Your task to perform on an android device: turn on priority inbox in the gmail app Image 0: 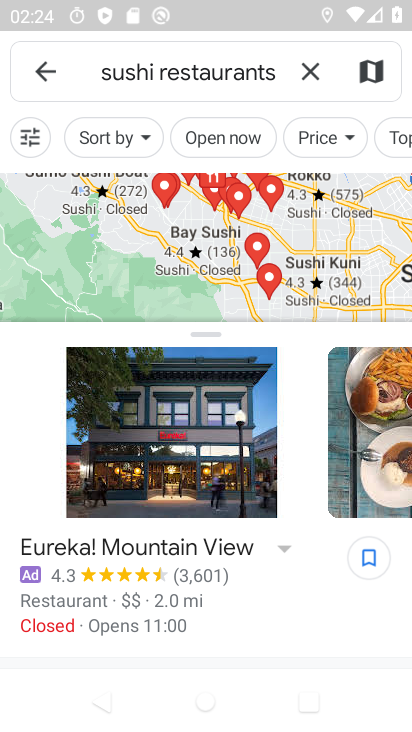
Step 0: press home button
Your task to perform on an android device: turn on priority inbox in the gmail app Image 1: 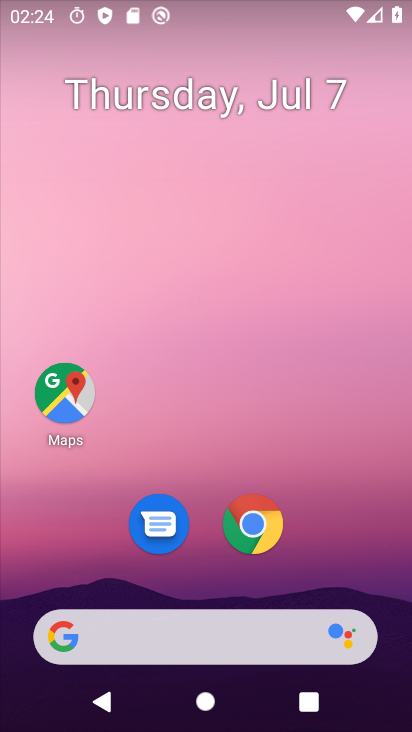
Step 1: drag from (260, 469) to (299, 0)
Your task to perform on an android device: turn on priority inbox in the gmail app Image 2: 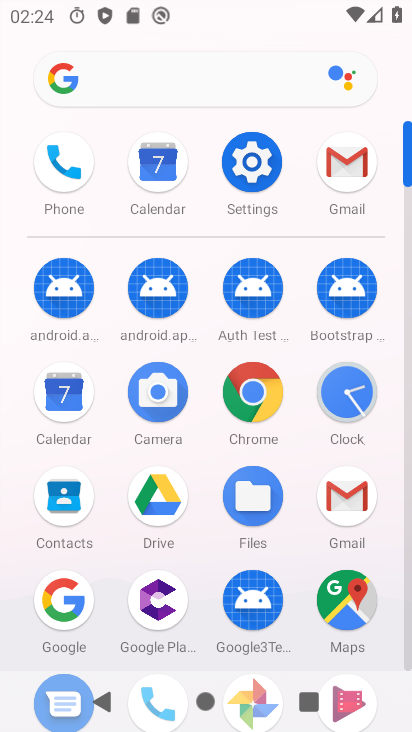
Step 2: click (362, 166)
Your task to perform on an android device: turn on priority inbox in the gmail app Image 3: 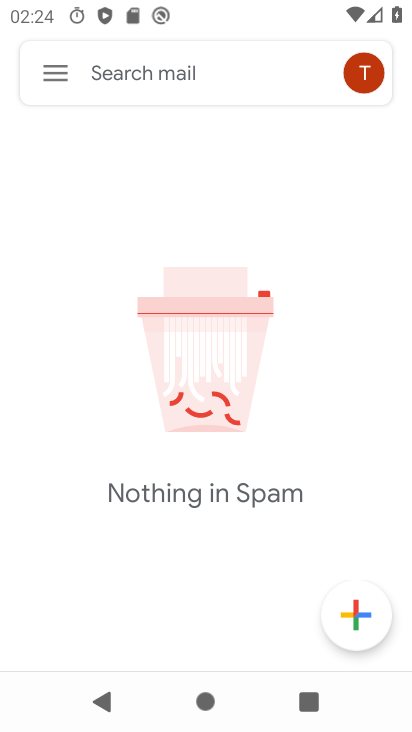
Step 3: click (59, 73)
Your task to perform on an android device: turn on priority inbox in the gmail app Image 4: 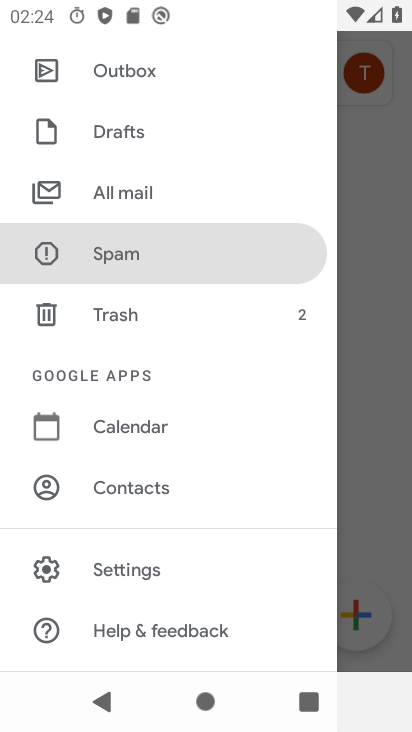
Step 4: click (164, 569)
Your task to perform on an android device: turn on priority inbox in the gmail app Image 5: 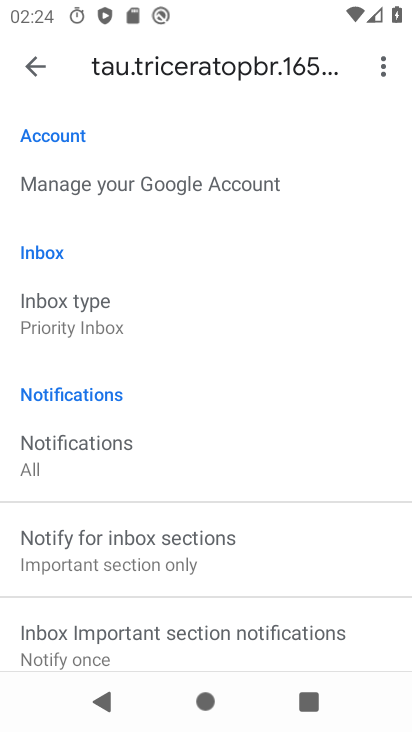
Step 5: task complete